Your task to perform on an android device: move a message to another label in the gmail app Image 0: 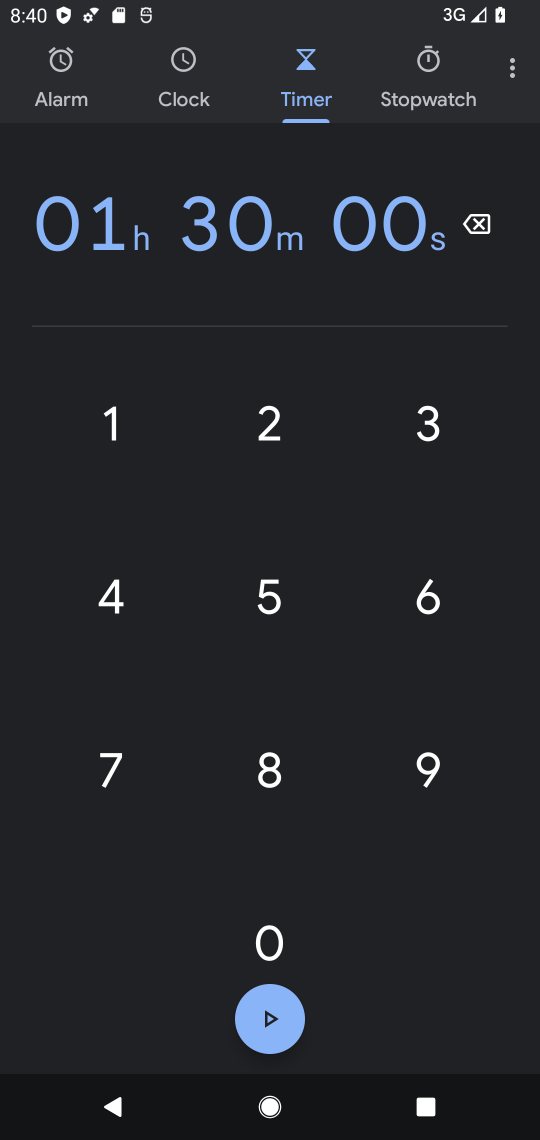
Step 0: press home button
Your task to perform on an android device: move a message to another label in the gmail app Image 1: 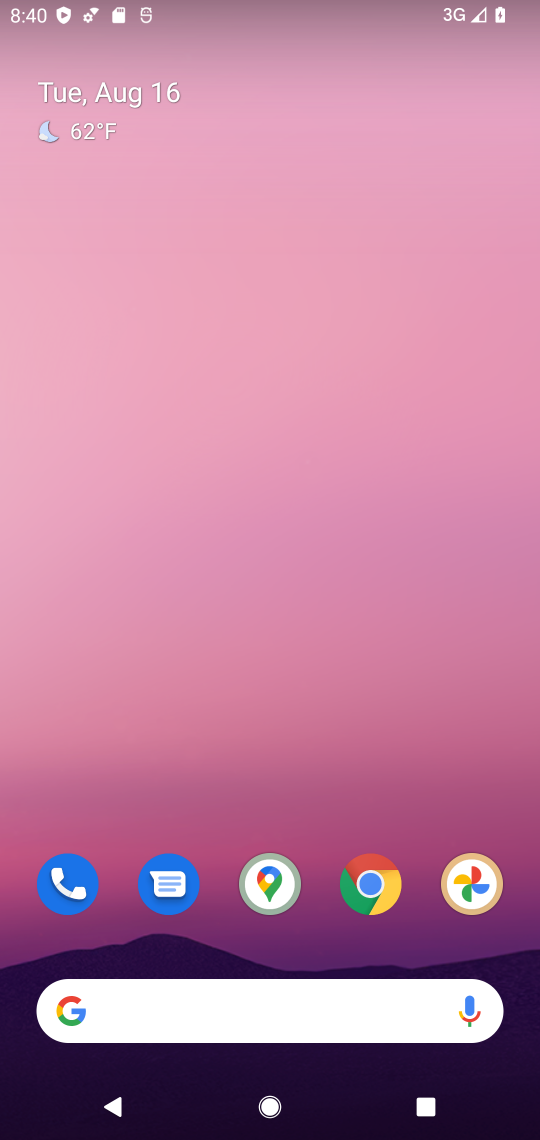
Step 1: drag from (406, 955) to (391, 236)
Your task to perform on an android device: move a message to another label in the gmail app Image 2: 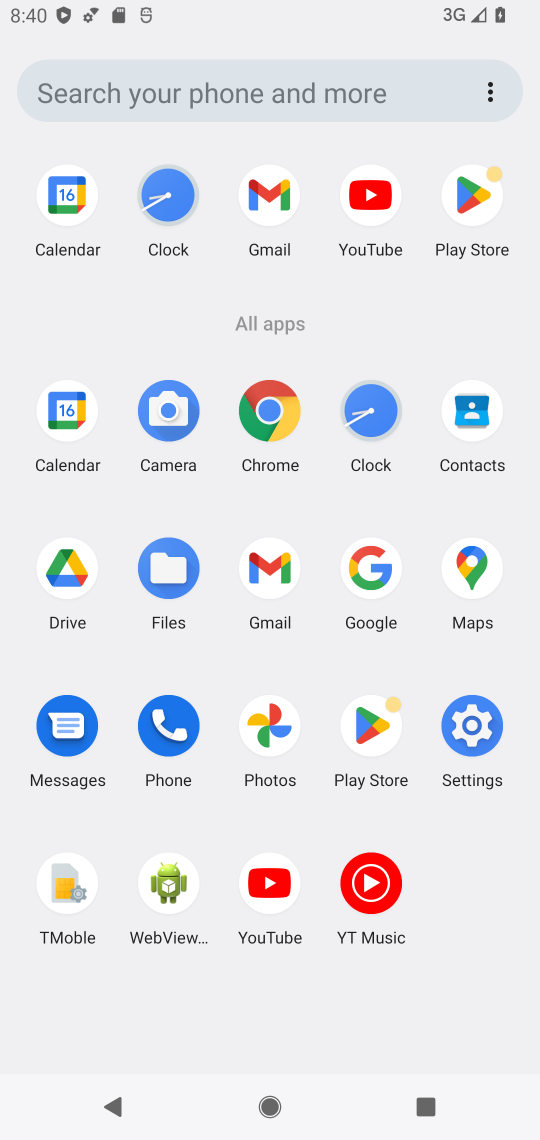
Step 2: click (265, 572)
Your task to perform on an android device: move a message to another label in the gmail app Image 3: 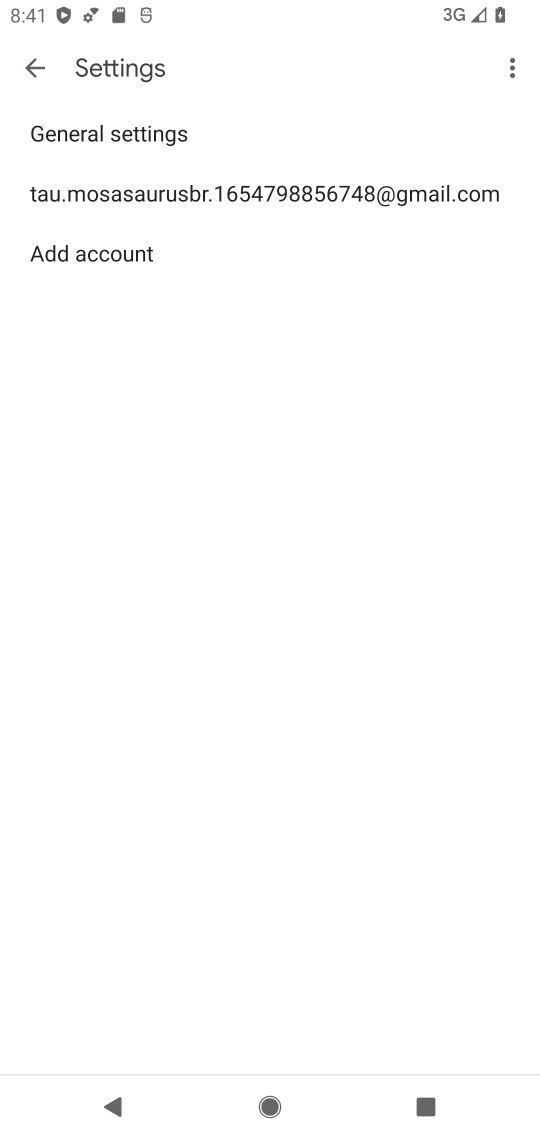
Step 3: press back button
Your task to perform on an android device: move a message to another label in the gmail app Image 4: 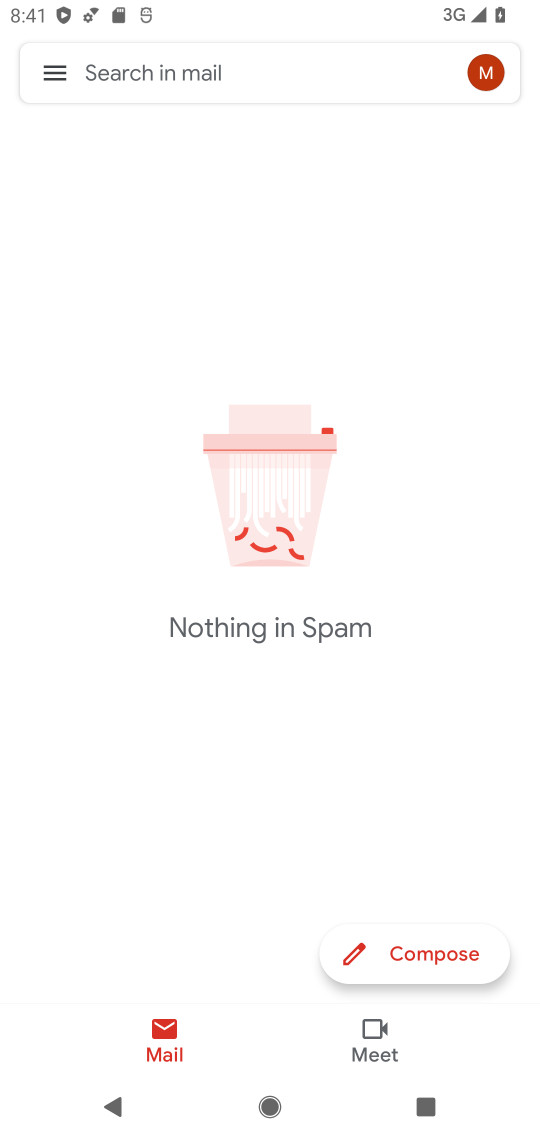
Step 4: click (59, 73)
Your task to perform on an android device: move a message to another label in the gmail app Image 5: 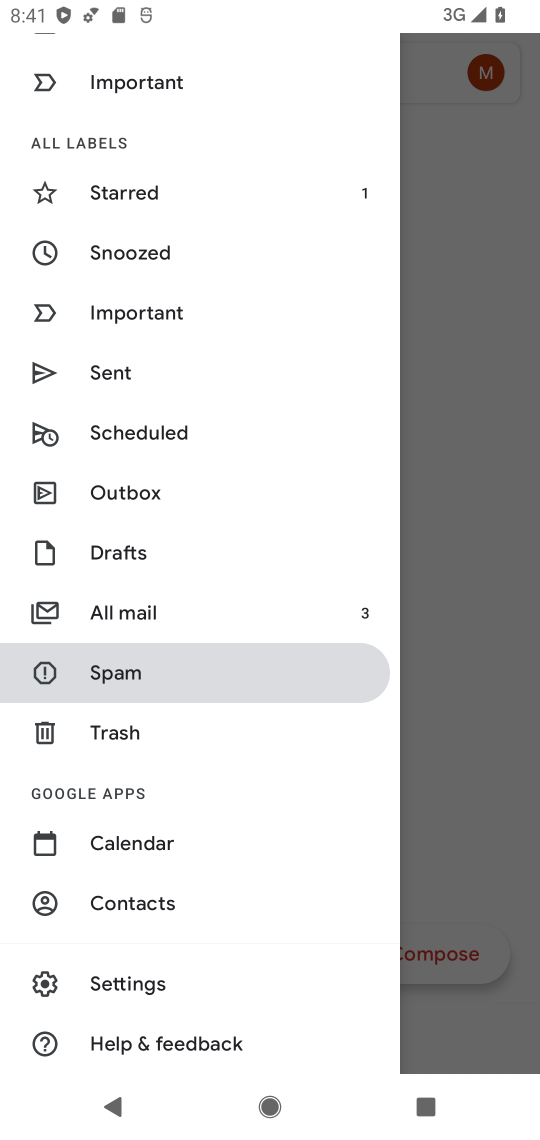
Step 5: click (120, 609)
Your task to perform on an android device: move a message to another label in the gmail app Image 6: 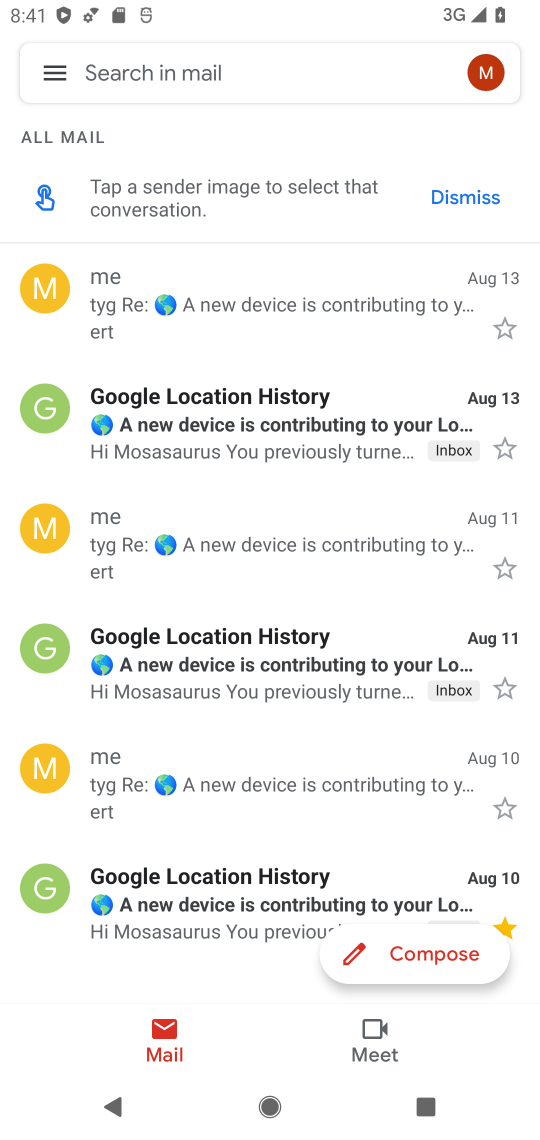
Step 6: click (225, 762)
Your task to perform on an android device: move a message to another label in the gmail app Image 7: 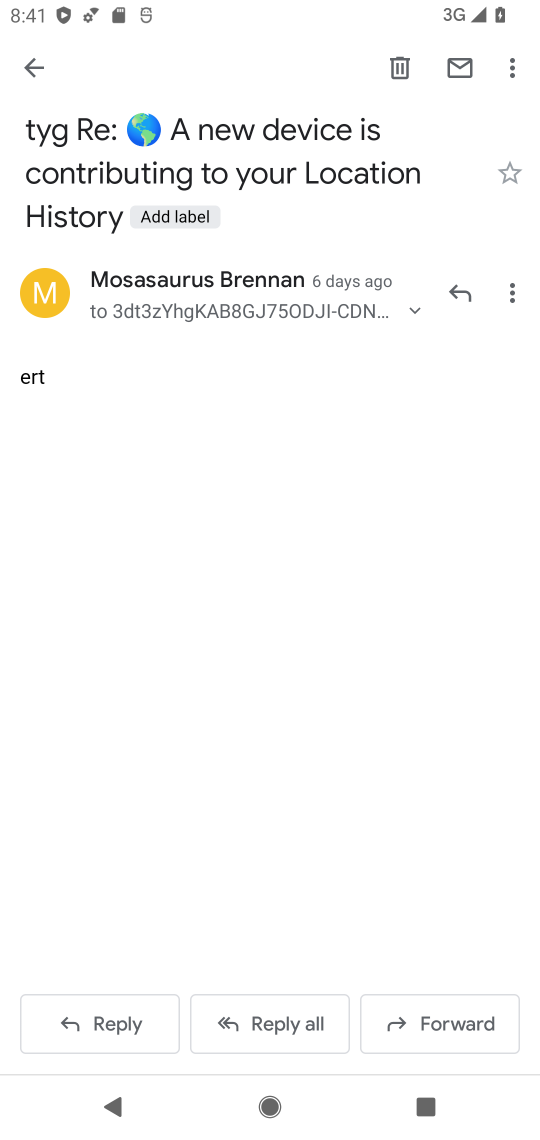
Step 7: click (509, 78)
Your task to perform on an android device: move a message to another label in the gmail app Image 8: 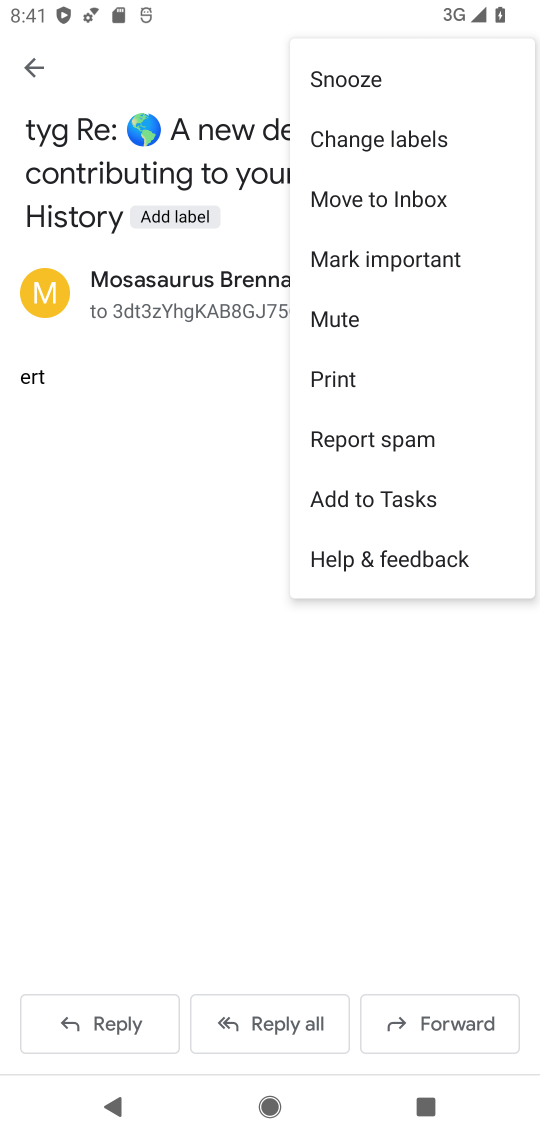
Step 8: click (353, 198)
Your task to perform on an android device: move a message to another label in the gmail app Image 9: 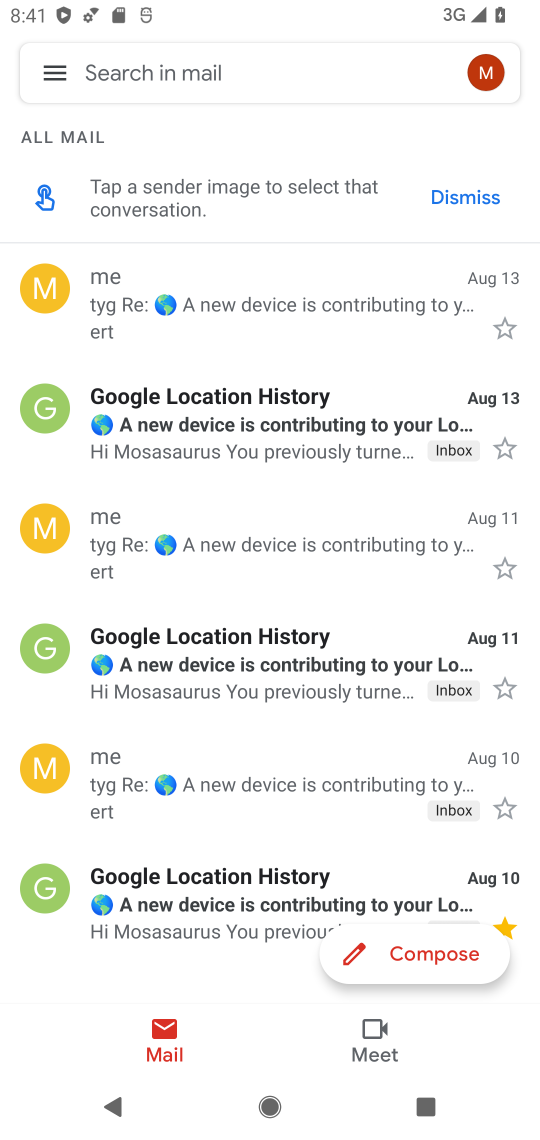
Step 9: task complete